Your task to perform on an android device: turn pop-ups off in chrome Image 0: 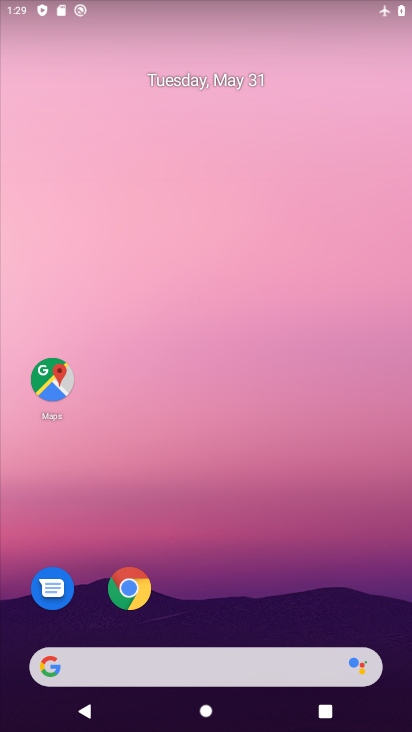
Step 0: drag from (367, 622) to (370, 193)
Your task to perform on an android device: turn pop-ups off in chrome Image 1: 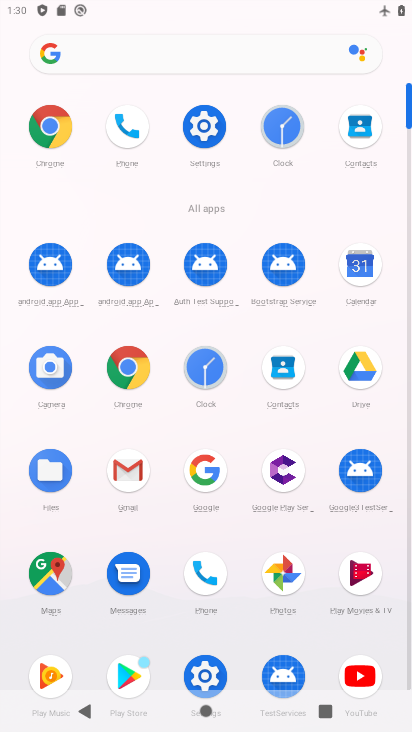
Step 1: click (127, 375)
Your task to perform on an android device: turn pop-ups off in chrome Image 2: 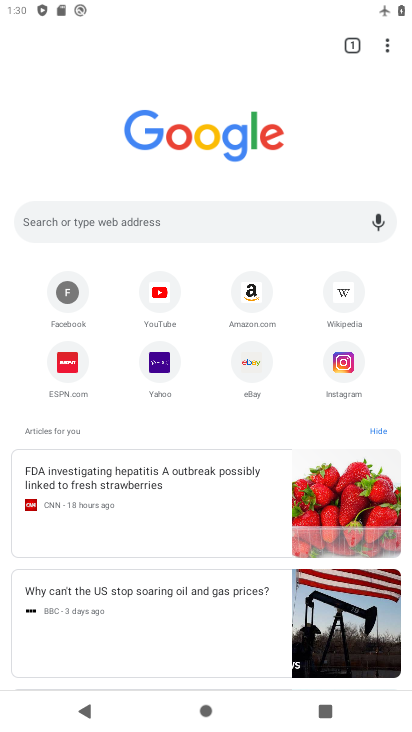
Step 2: click (383, 47)
Your task to perform on an android device: turn pop-ups off in chrome Image 3: 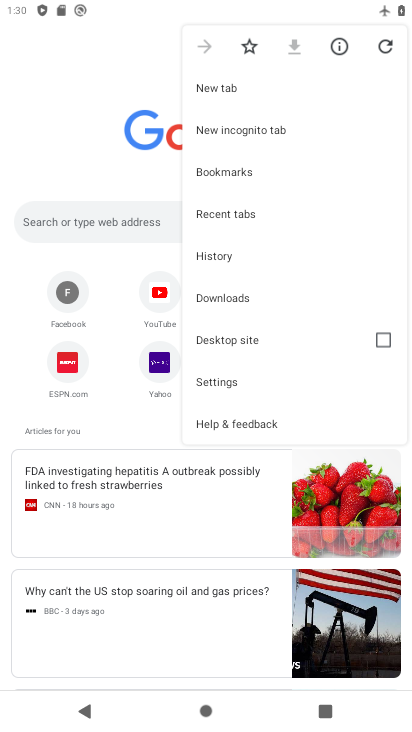
Step 3: drag from (310, 345) to (336, 200)
Your task to perform on an android device: turn pop-ups off in chrome Image 4: 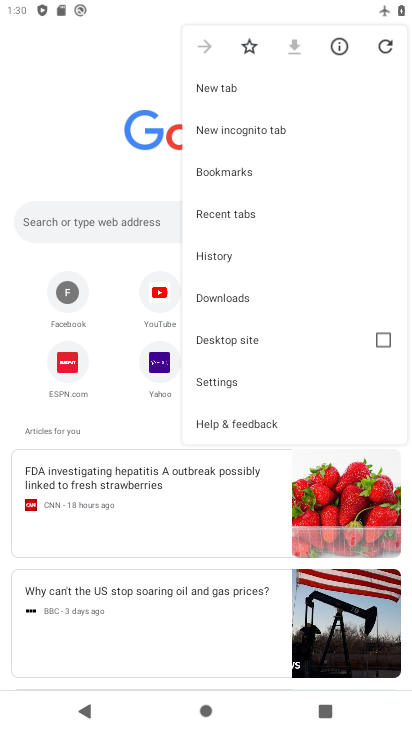
Step 4: click (235, 387)
Your task to perform on an android device: turn pop-ups off in chrome Image 5: 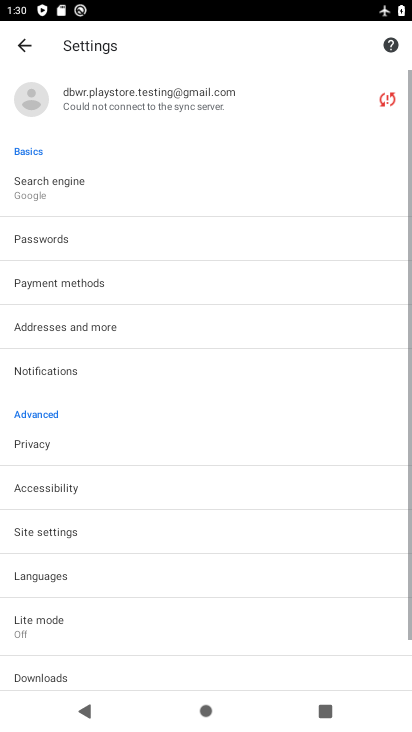
Step 5: drag from (250, 450) to (271, 342)
Your task to perform on an android device: turn pop-ups off in chrome Image 6: 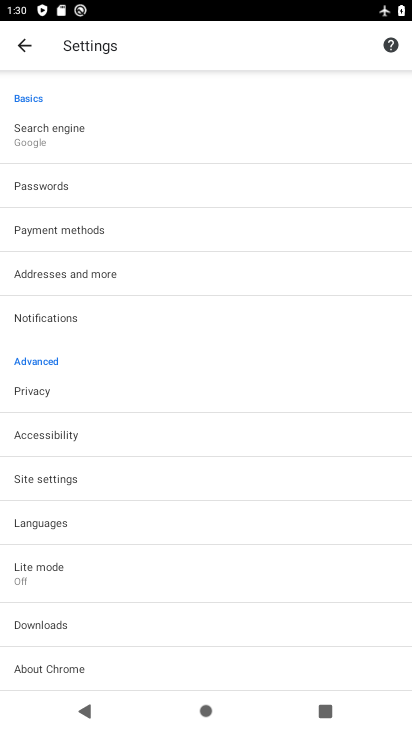
Step 6: drag from (285, 489) to (290, 366)
Your task to perform on an android device: turn pop-ups off in chrome Image 7: 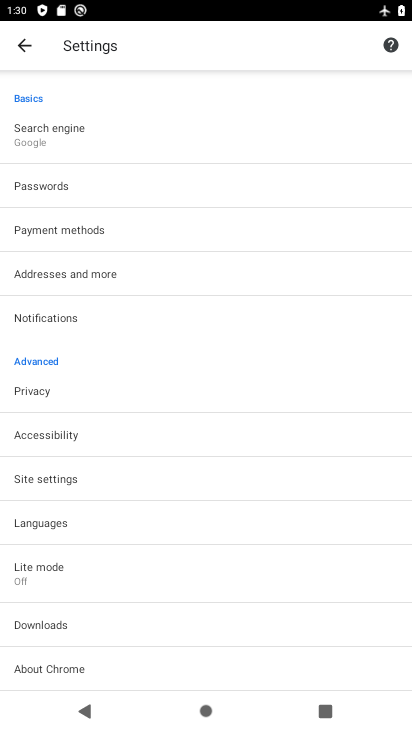
Step 7: click (196, 484)
Your task to perform on an android device: turn pop-ups off in chrome Image 8: 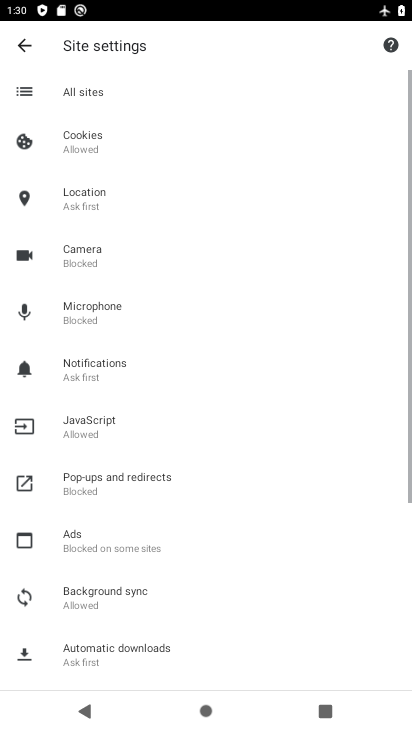
Step 8: drag from (222, 532) to (241, 416)
Your task to perform on an android device: turn pop-ups off in chrome Image 9: 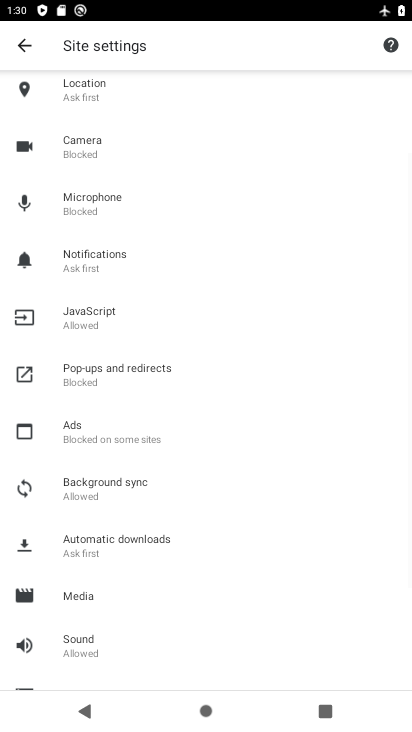
Step 9: drag from (256, 526) to (274, 342)
Your task to perform on an android device: turn pop-ups off in chrome Image 10: 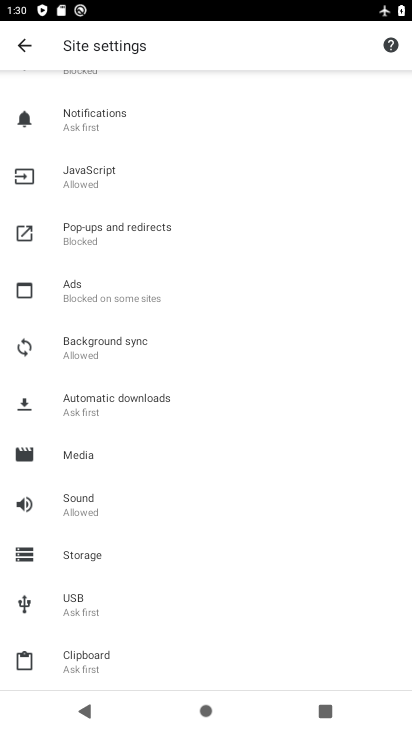
Step 10: drag from (272, 273) to (268, 351)
Your task to perform on an android device: turn pop-ups off in chrome Image 11: 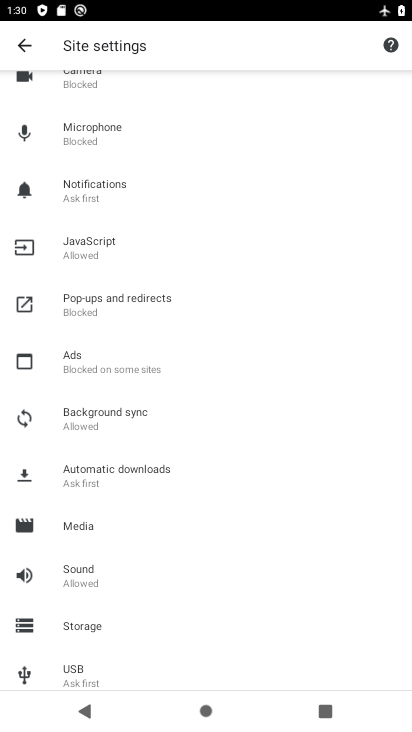
Step 11: drag from (268, 243) to (262, 344)
Your task to perform on an android device: turn pop-ups off in chrome Image 12: 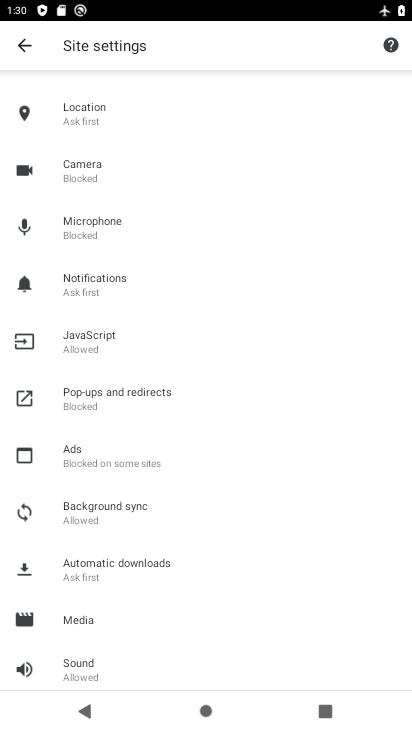
Step 12: drag from (261, 167) to (254, 302)
Your task to perform on an android device: turn pop-ups off in chrome Image 13: 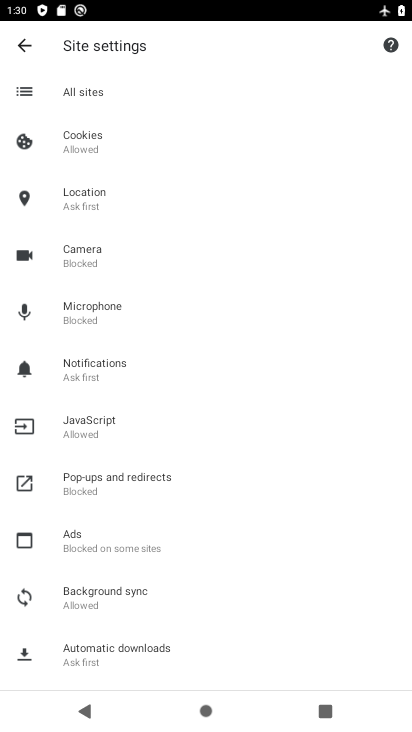
Step 13: drag from (234, 165) to (228, 353)
Your task to perform on an android device: turn pop-ups off in chrome Image 14: 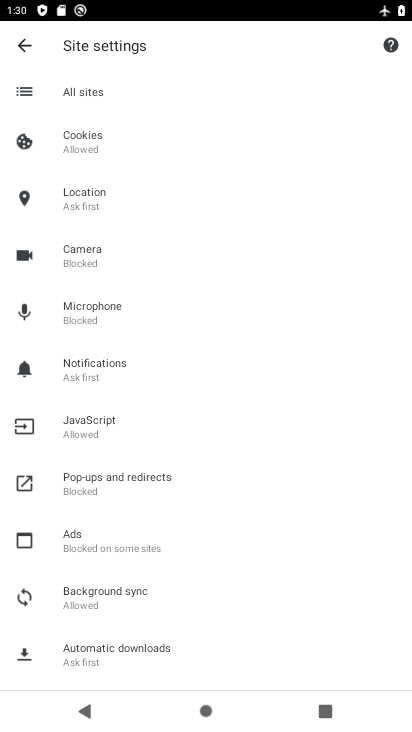
Step 14: click (154, 483)
Your task to perform on an android device: turn pop-ups off in chrome Image 15: 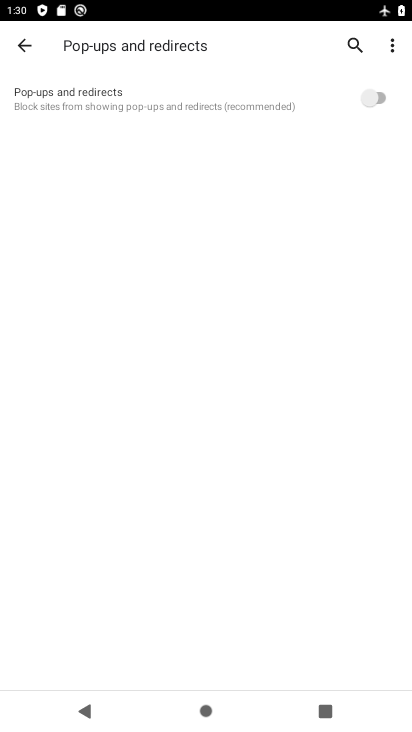
Step 15: task complete